Your task to perform on an android device: Open CNN.com Image 0: 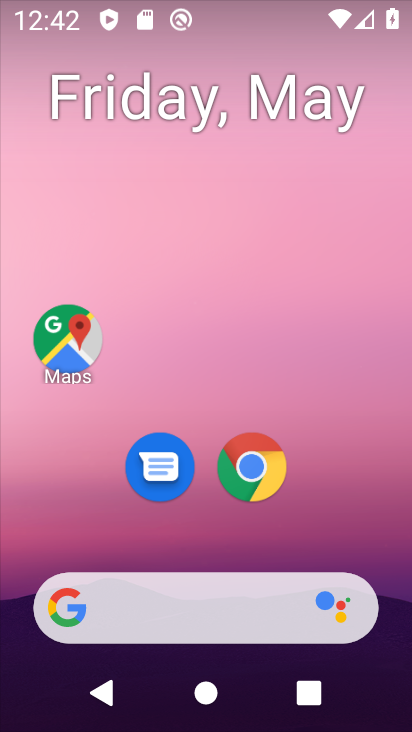
Step 0: click (253, 411)
Your task to perform on an android device: Open CNN.com Image 1: 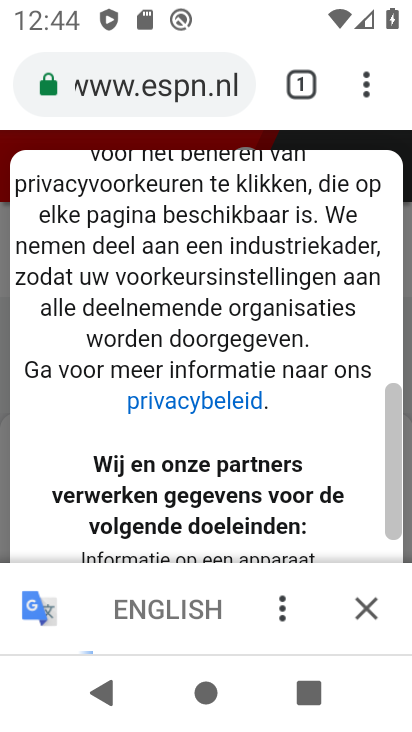
Step 1: click (152, 93)
Your task to perform on an android device: Open CNN.com Image 2: 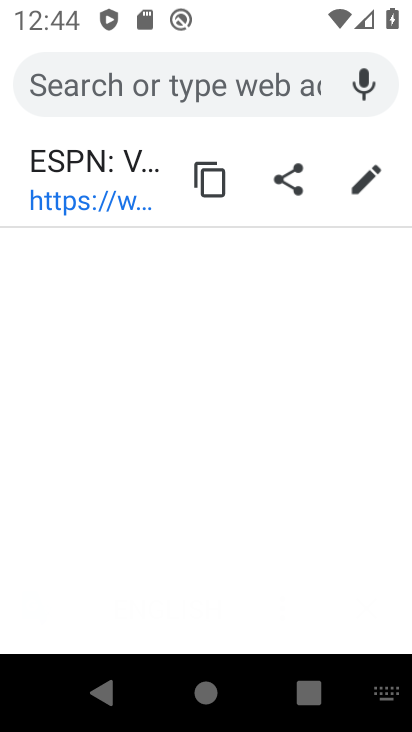
Step 2: type " CNN.com"
Your task to perform on an android device: Open CNN.com Image 3: 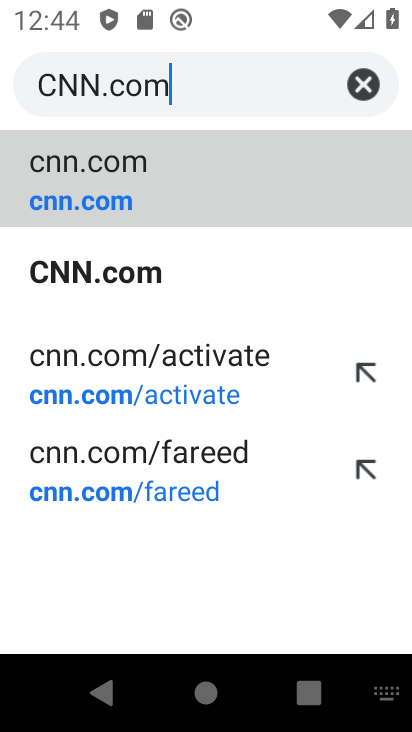
Step 3: click (163, 159)
Your task to perform on an android device: Open CNN.com Image 4: 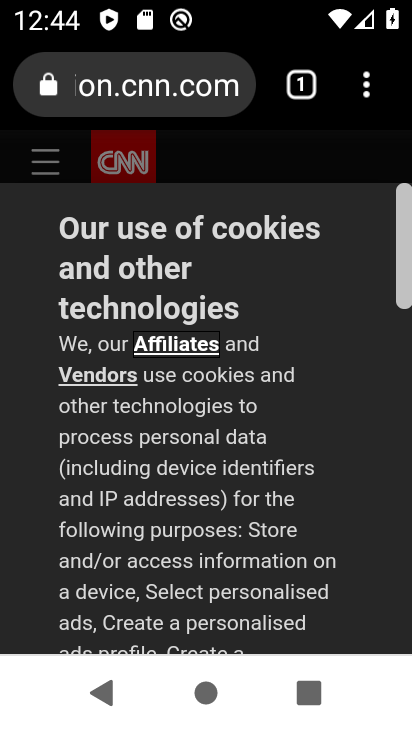
Step 4: task complete